Your task to perform on an android device: open chrome privacy settings Image 0: 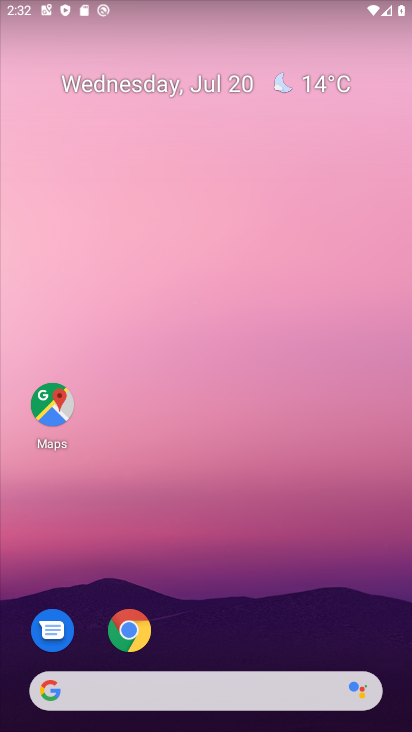
Step 0: click (135, 629)
Your task to perform on an android device: open chrome privacy settings Image 1: 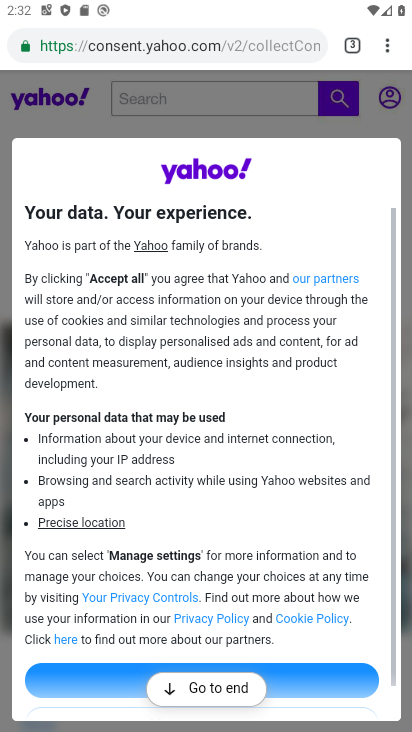
Step 1: click (388, 54)
Your task to perform on an android device: open chrome privacy settings Image 2: 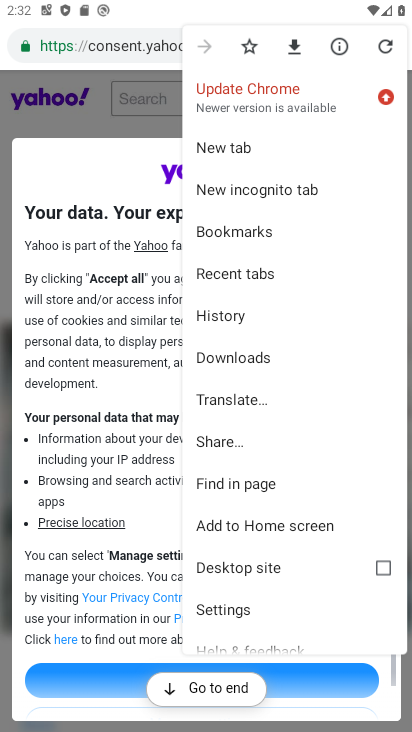
Step 2: click (229, 608)
Your task to perform on an android device: open chrome privacy settings Image 3: 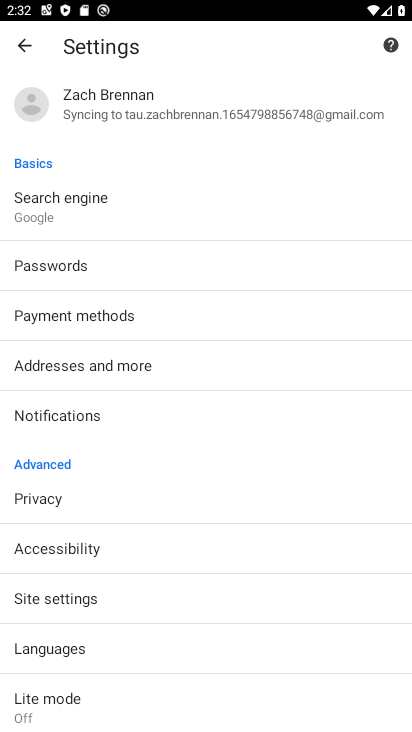
Step 3: drag from (93, 619) to (112, 492)
Your task to perform on an android device: open chrome privacy settings Image 4: 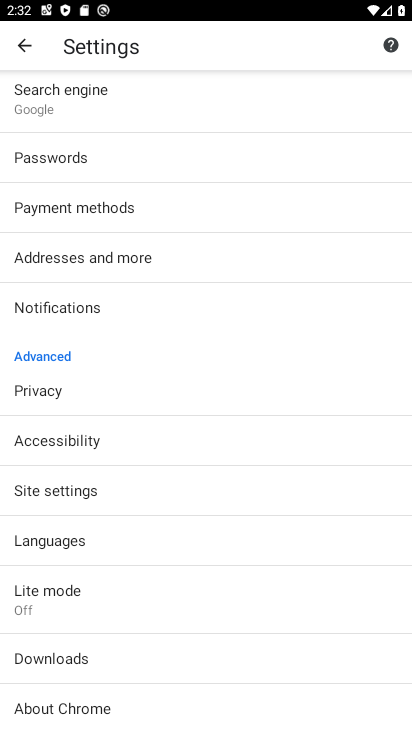
Step 4: click (38, 384)
Your task to perform on an android device: open chrome privacy settings Image 5: 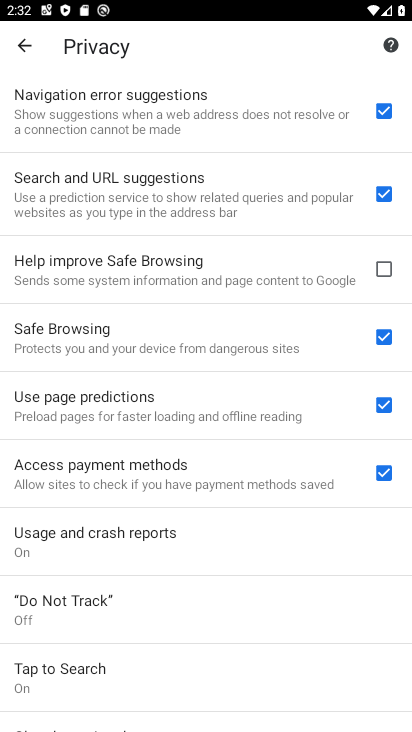
Step 5: task complete